Your task to perform on an android device: Open maps Image 0: 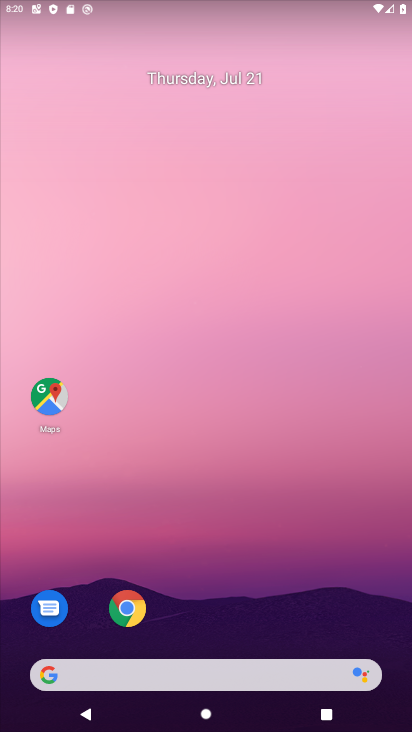
Step 0: click (48, 396)
Your task to perform on an android device: Open maps Image 1: 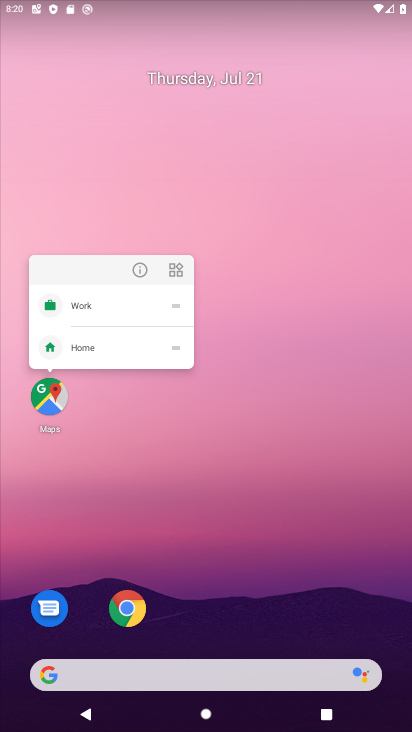
Step 1: click (49, 402)
Your task to perform on an android device: Open maps Image 2: 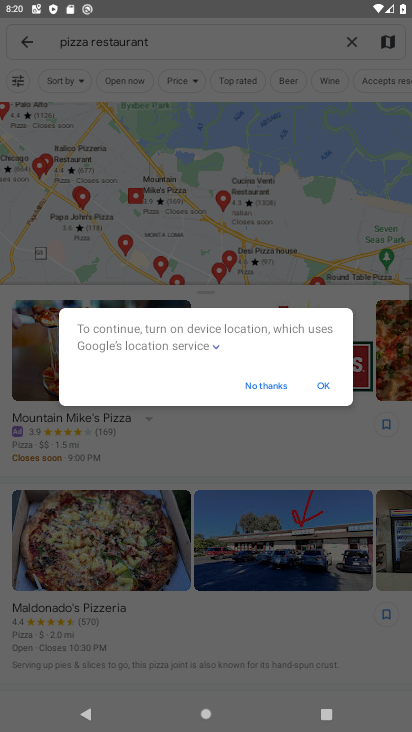
Step 2: click (323, 379)
Your task to perform on an android device: Open maps Image 3: 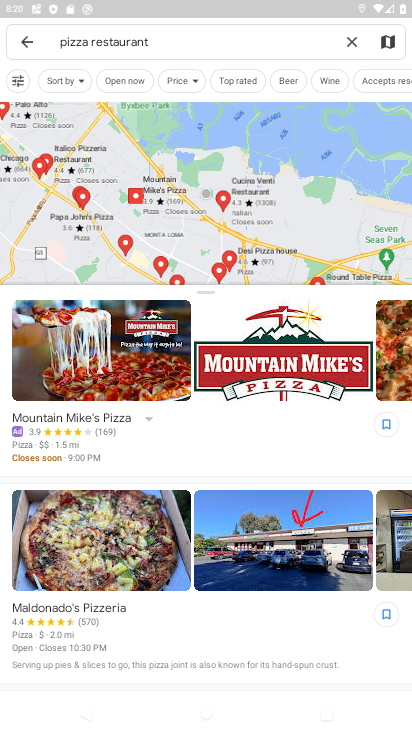
Step 3: click (21, 47)
Your task to perform on an android device: Open maps Image 4: 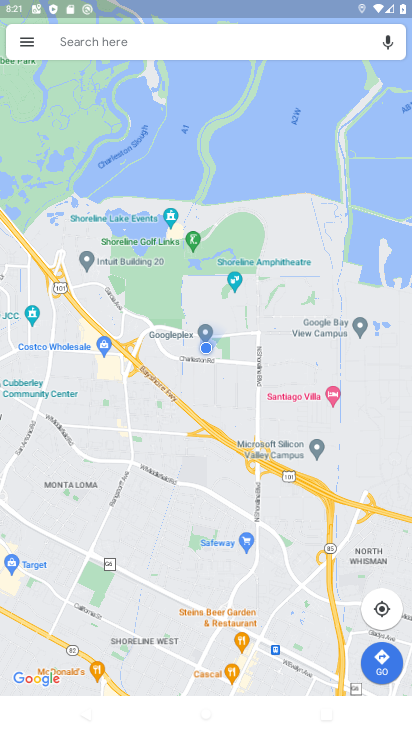
Step 4: task complete